Your task to perform on an android device: Check the news Image 0: 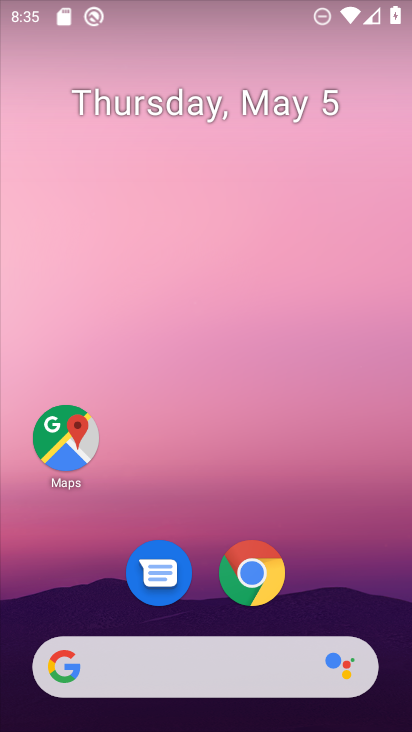
Step 0: click (191, 662)
Your task to perform on an android device: Check the news Image 1: 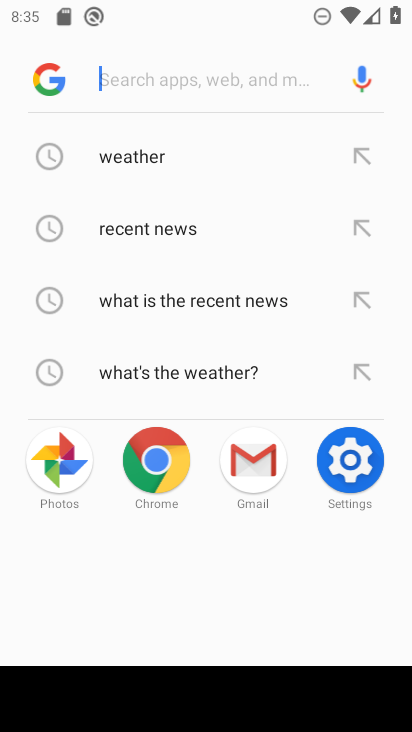
Step 1: click (146, 232)
Your task to perform on an android device: Check the news Image 2: 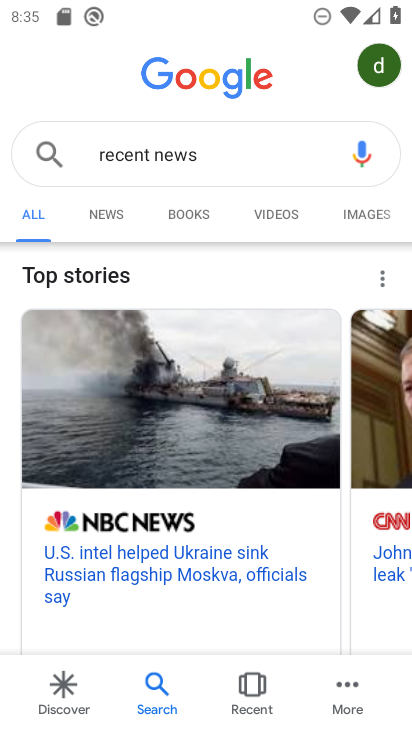
Step 2: task complete